Your task to perform on an android device: refresh tabs in the chrome app Image 0: 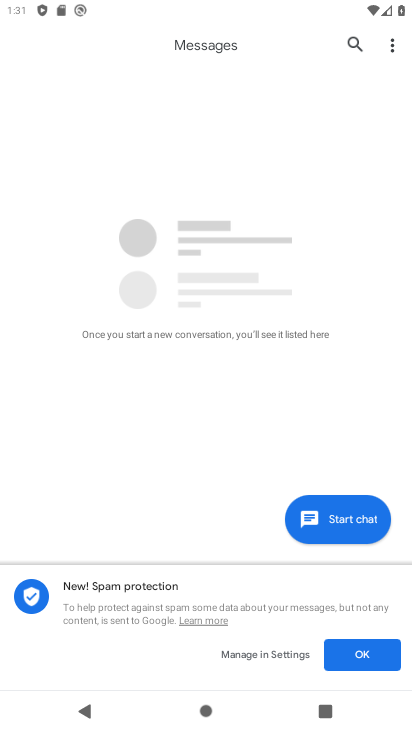
Step 0: press home button
Your task to perform on an android device: refresh tabs in the chrome app Image 1: 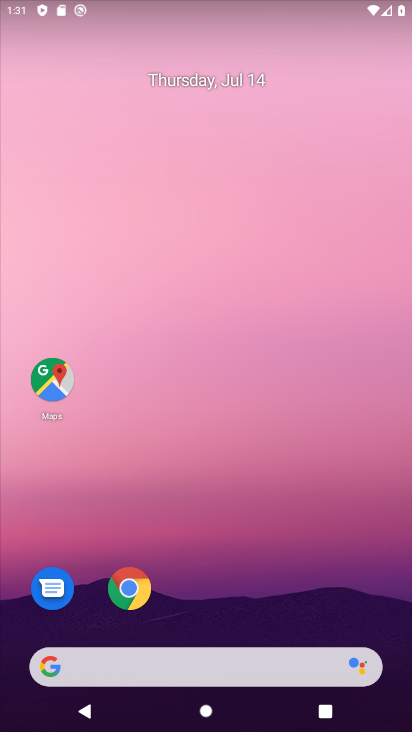
Step 1: drag from (194, 633) to (234, 232)
Your task to perform on an android device: refresh tabs in the chrome app Image 2: 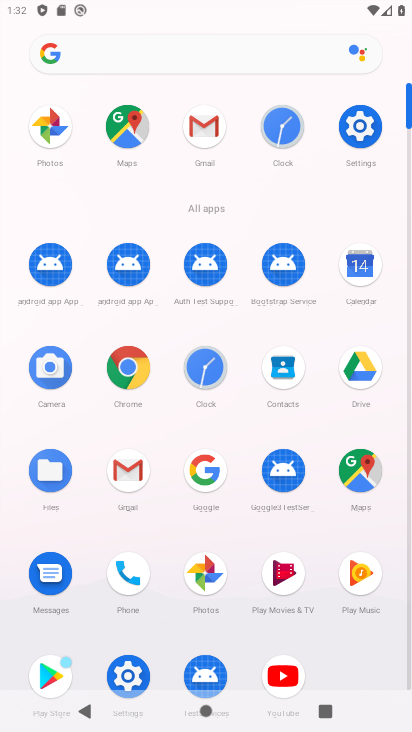
Step 2: click (135, 378)
Your task to perform on an android device: refresh tabs in the chrome app Image 3: 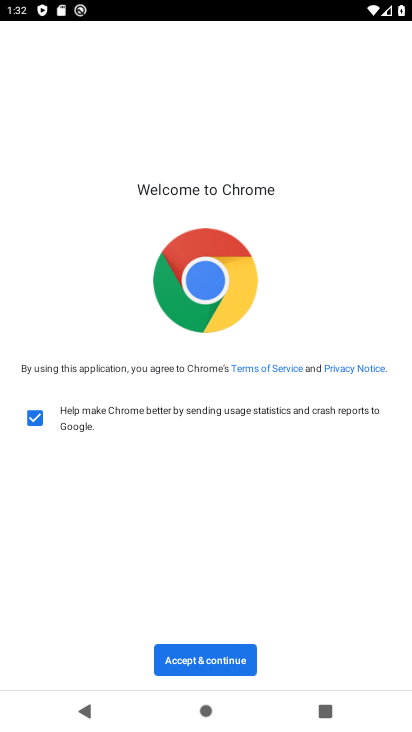
Step 3: click (227, 649)
Your task to perform on an android device: refresh tabs in the chrome app Image 4: 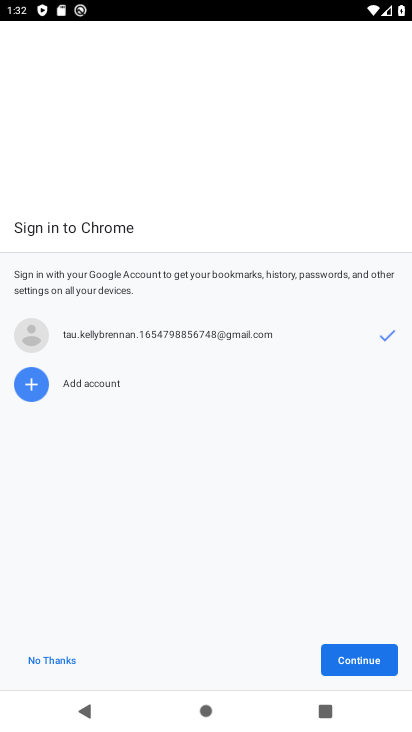
Step 4: click (331, 652)
Your task to perform on an android device: refresh tabs in the chrome app Image 5: 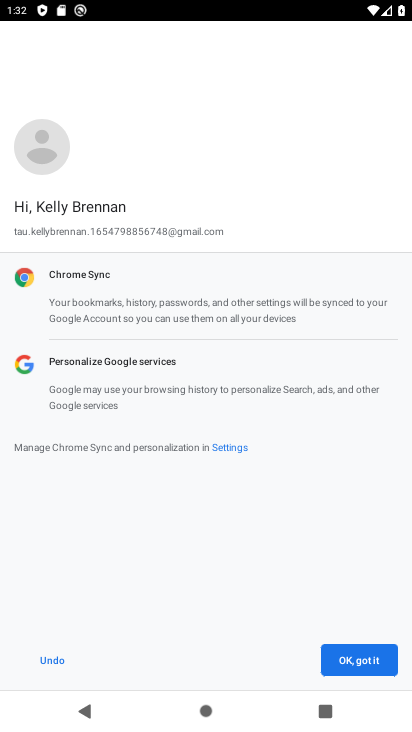
Step 5: click (383, 654)
Your task to perform on an android device: refresh tabs in the chrome app Image 6: 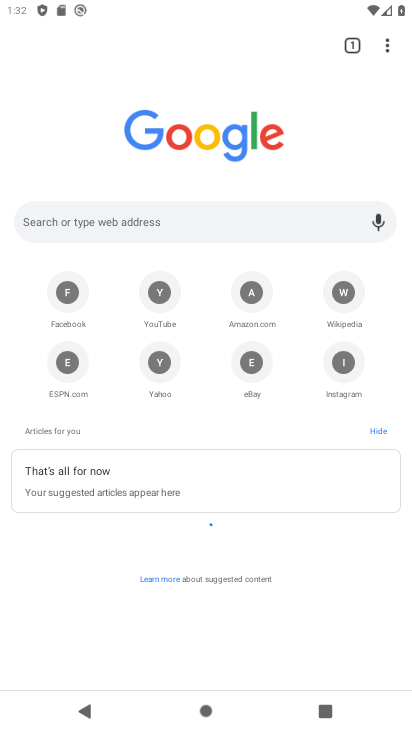
Step 6: click (386, 43)
Your task to perform on an android device: refresh tabs in the chrome app Image 7: 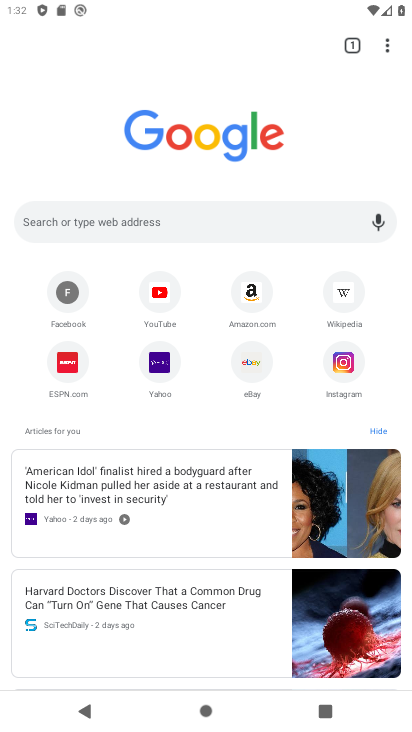
Step 7: task complete